Your task to perform on an android device: Open Google Maps Image 0: 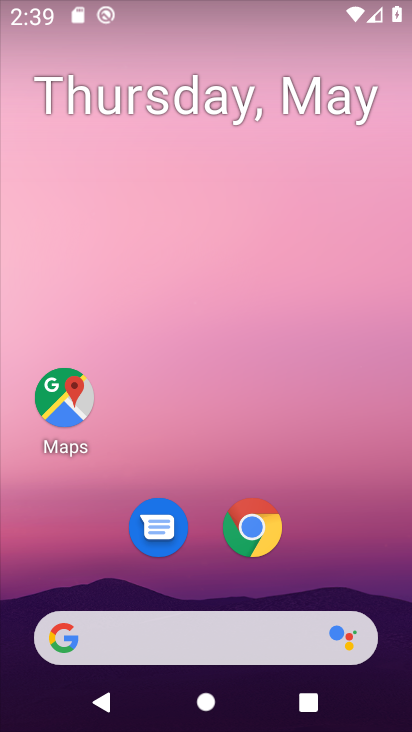
Step 0: press home button
Your task to perform on an android device: Open Google Maps Image 1: 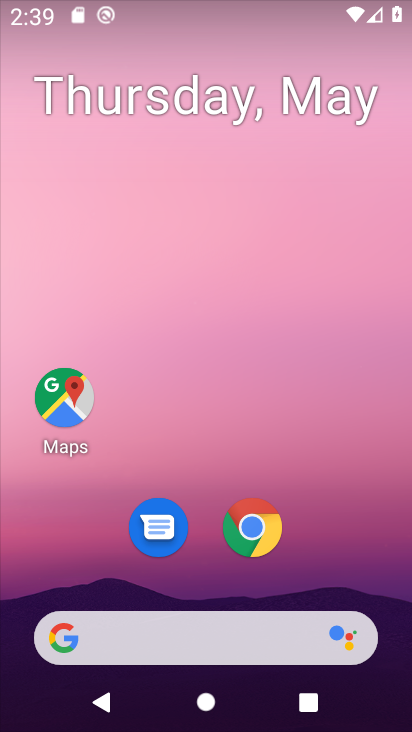
Step 1: click (60, 391)
Your task to perform on an android device: Open Google Maps Image 2: 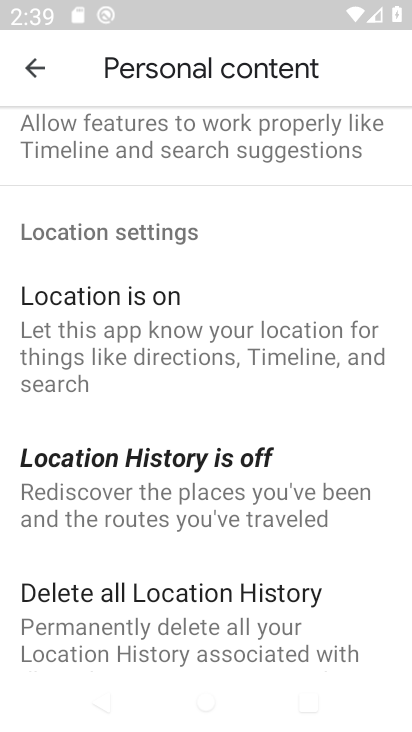
Step 2: task complete